Your task to perform on an android device: check storage Image 0: 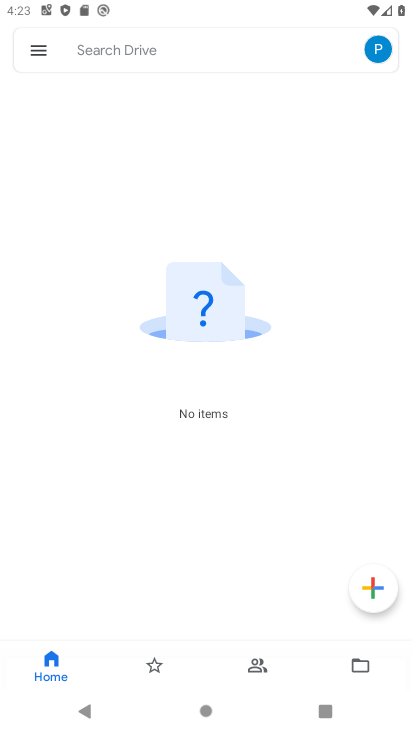
Step 0: press home button
Your task to perform on an android device: check storage Image 1: 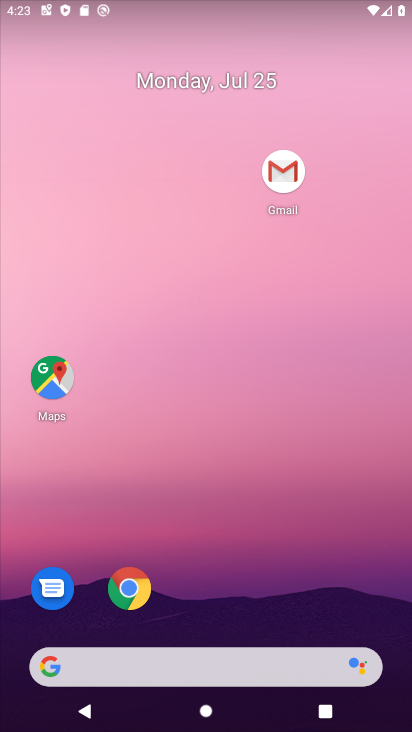
Step 1: drag from (325, 615) to (298, 58)
Your task to perform on an android device: check storage Image 2: 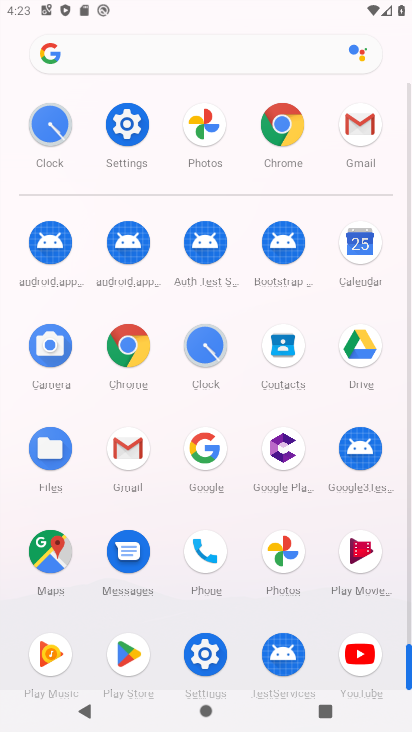
Step 2: click (119, 125)
Your task to perform on an android device: check storage Image 3: 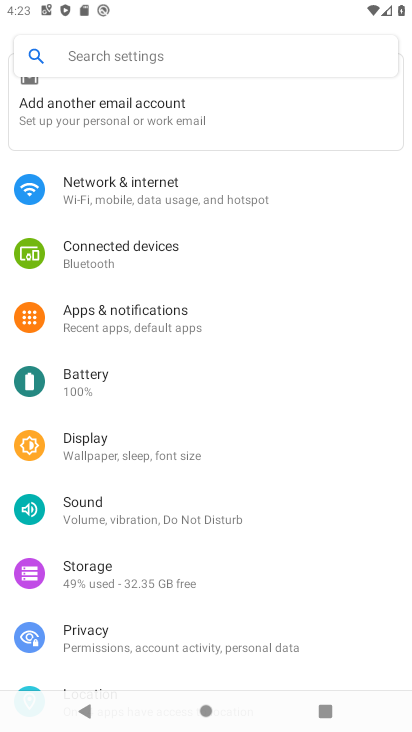
Step 3: click (166, 569)
Your task to perform on an android device: check storage Image 4: 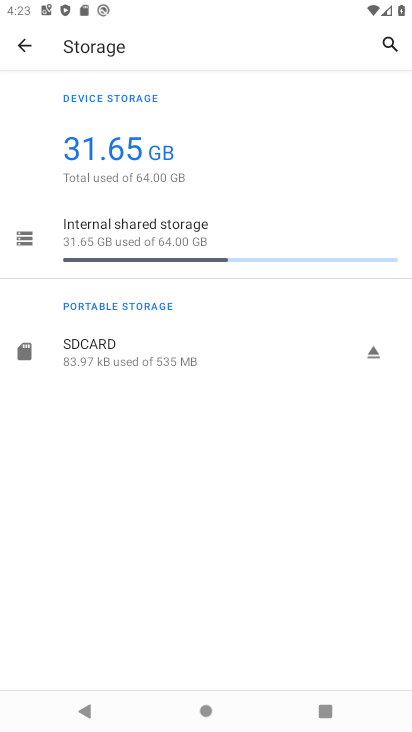
Step 4: task complete